Your task to perform on an android device: install app "Google Duo" Image 0: 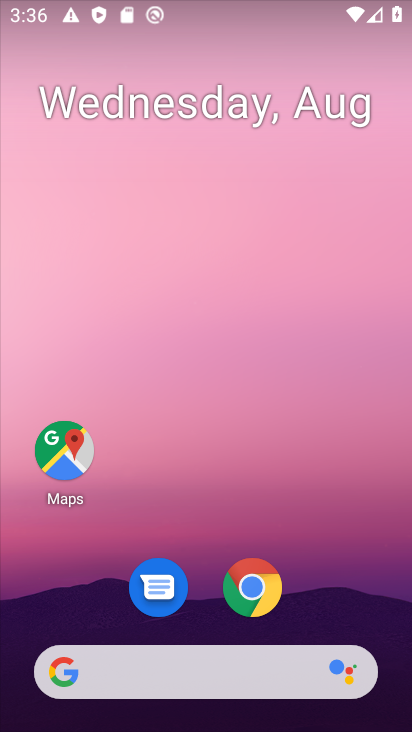
Step 0: drag from (214, 527) to (347, 6)
Your task to perform on an android device: install app "Google Duo" Image 1: 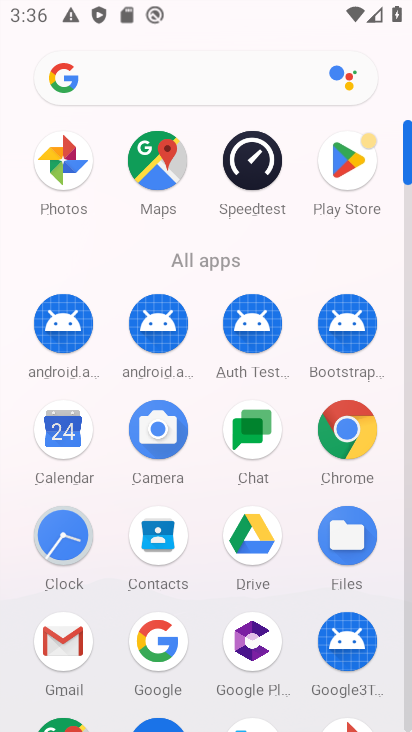
Step 1: click (346, 154)
Your task to perform on an android device: install app "Google Duo" Image 2: 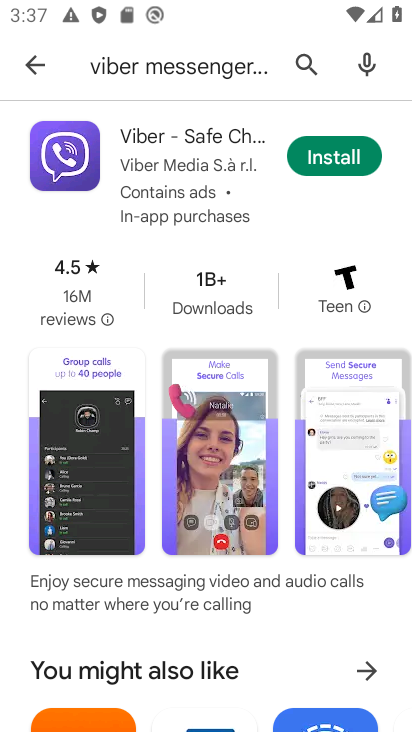
Step 2: click (299, 63)
Your task to perform on an android device: install app "Google Duo" Image 3: 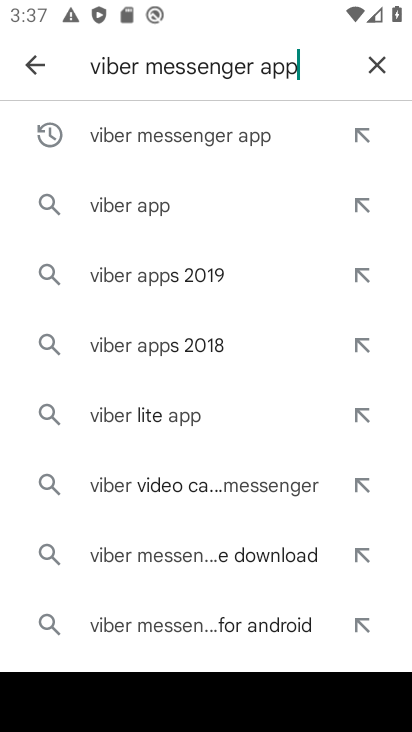
Step 3: click (384, 72)
Your task to perform on an android device: install app "Google Duo" Image 4: 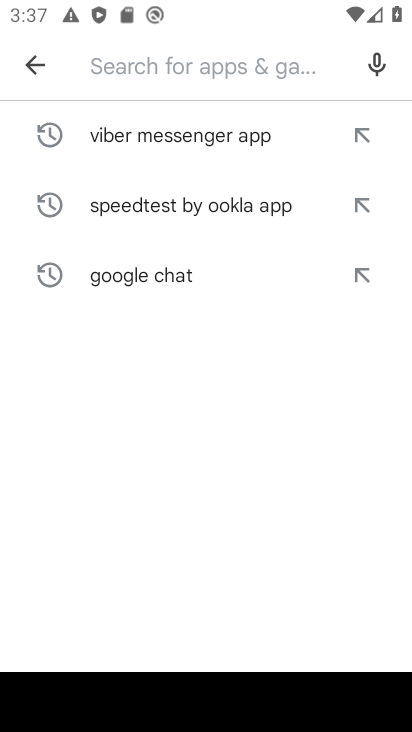
Step 4: type "Google Duo"
Your task to perform on an android device: install app "Google Duo" Image 5: 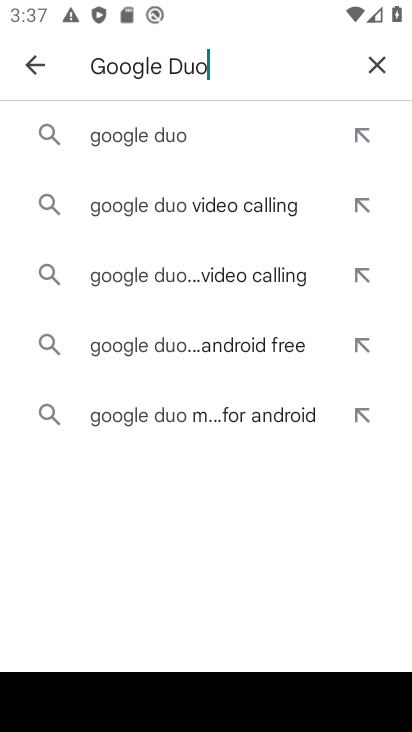
Step 5: click (122, 133)
Your task to perform on an android device: install app "Google Duo" Image 6: 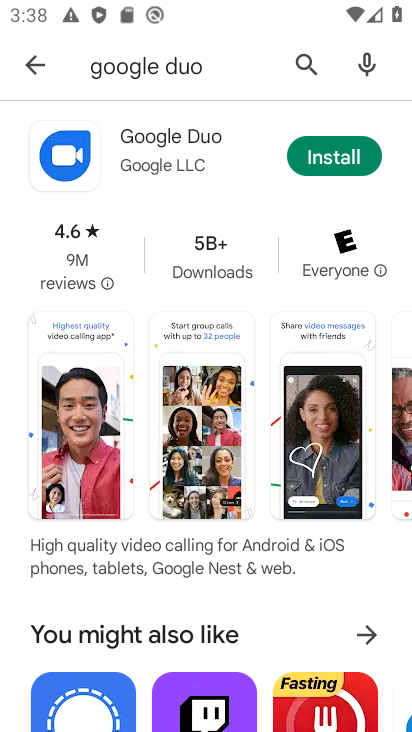
Step 6: click (353, 155)
Your task to perform on an android device: install app "Google Duo" Image 7: 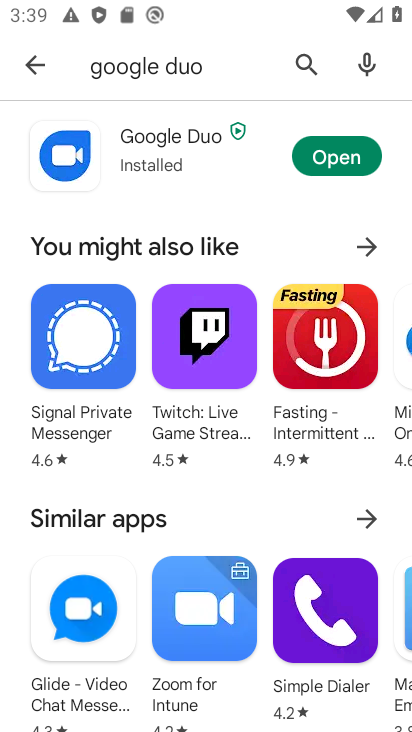
Step 7: click (338, 156)
Your task to perform on an android device: install app "Google Duo" Image 8: 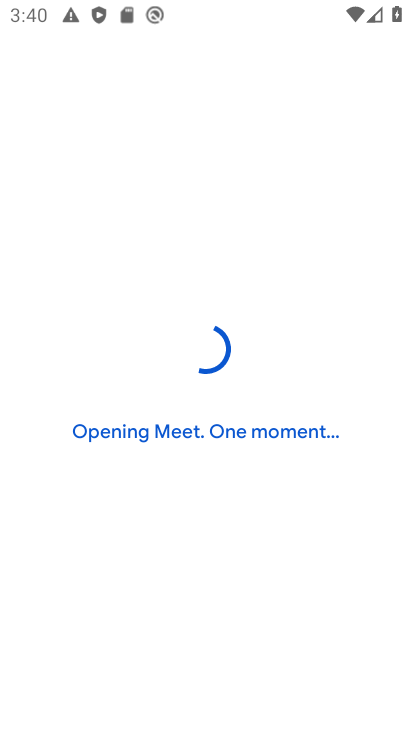
Step 8: task complete